Your task to perform on an android device: open the mobile data screen to see how much data has been used Image 0: 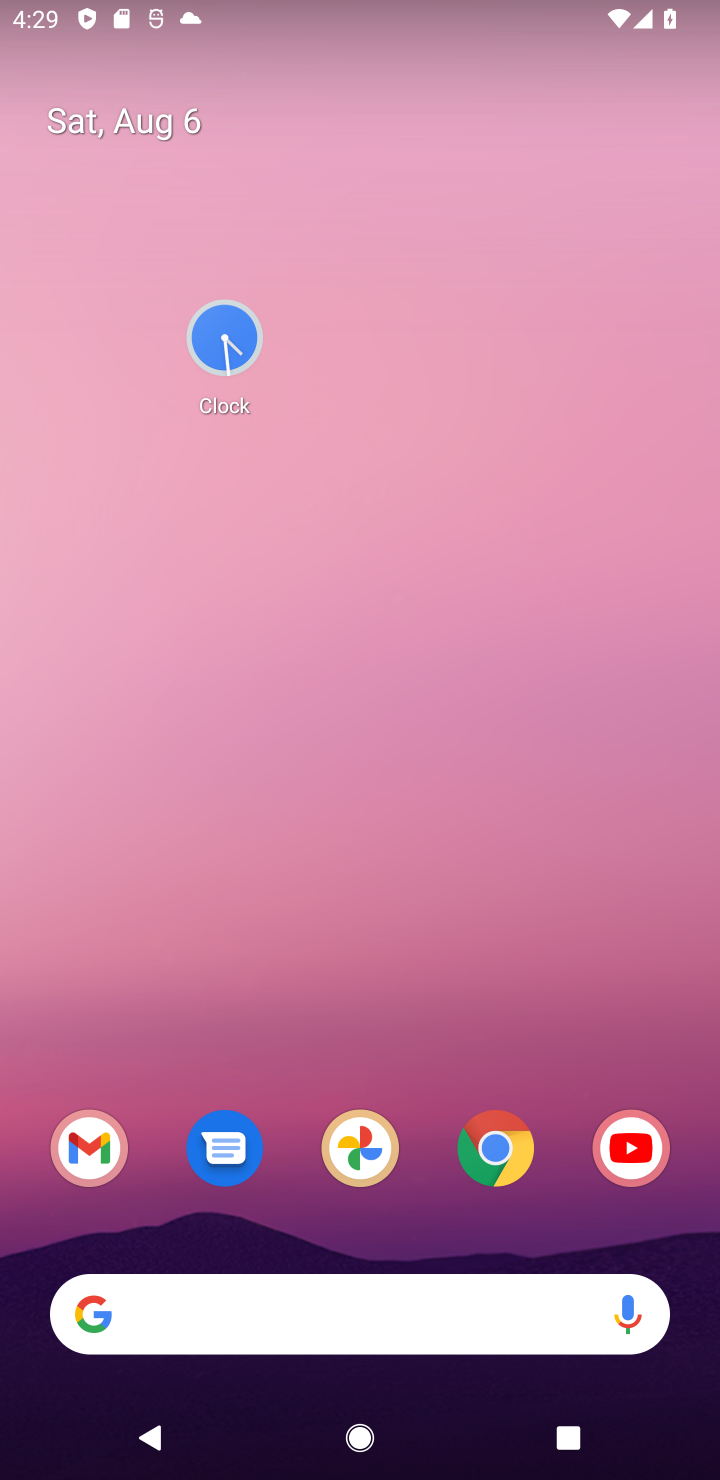
Step 0: drag from (331, 1166) to (380, 408)
Your task to perform on an android device: open the mobile data screen to see how much data has been used Image 1: 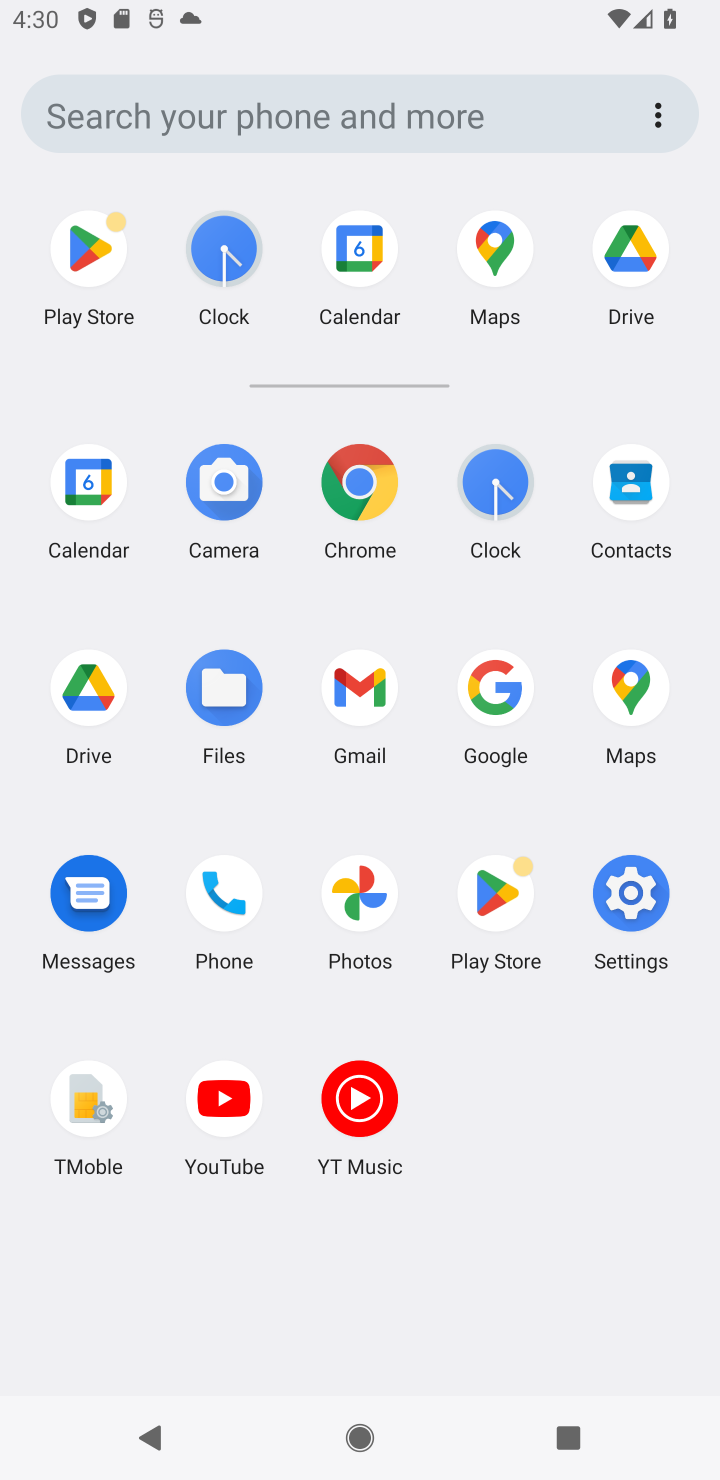
Step 1: click (646, 885)
Your task to perform on an android device: open the mobile data screen to see how much data has been used Image 2: 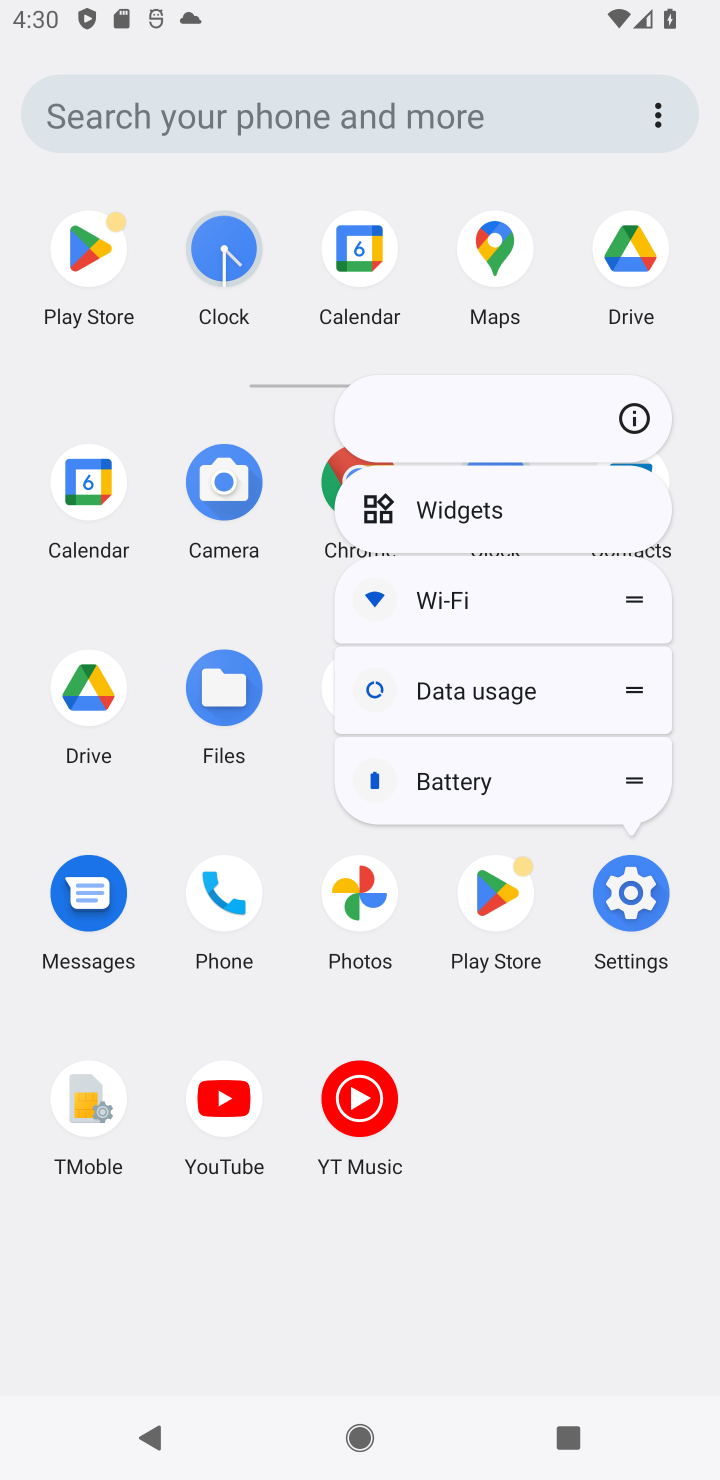
Step 2: click (620, 425)
Your task to perform on an android device: open the mobile data screen to see how much data has been used Image 3: 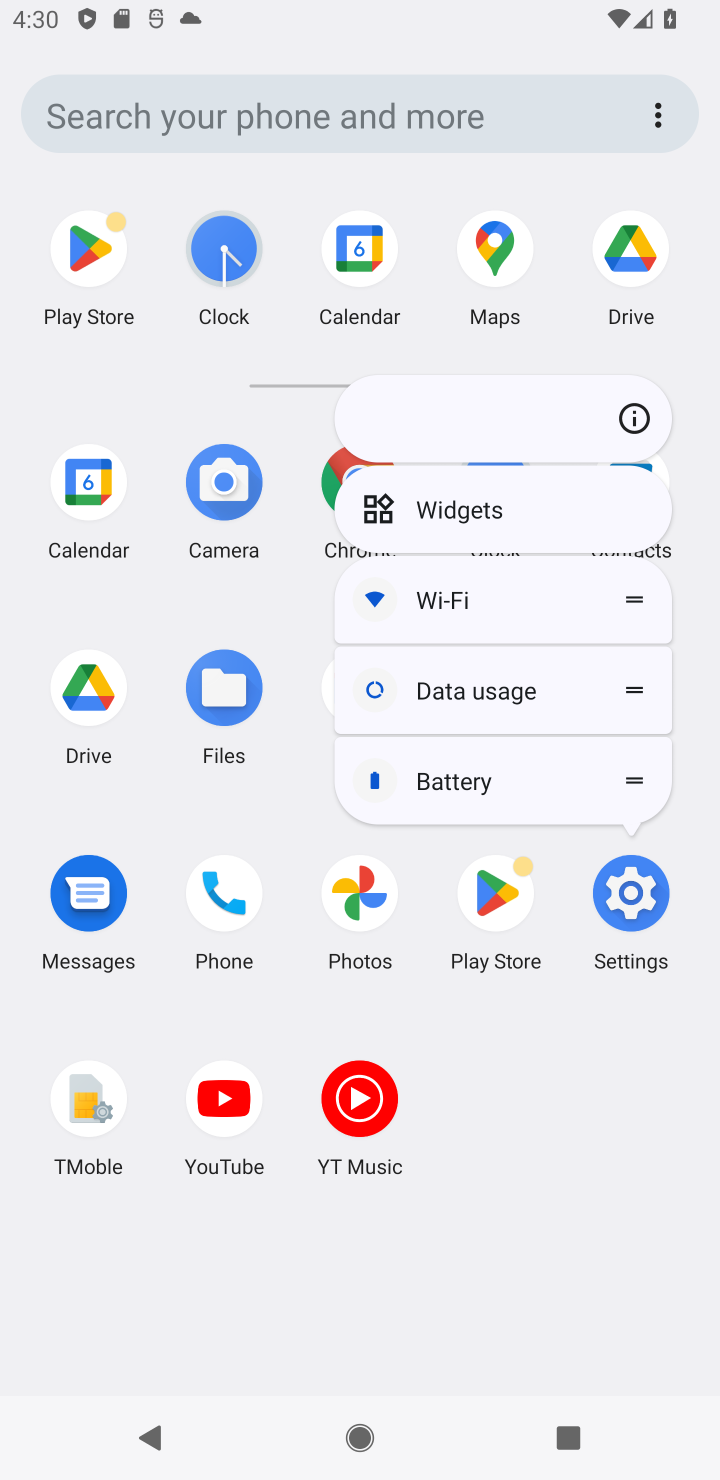
Step 3: click (646, 407)
Your task to perform on an android device: open the mobile data screen to see how much data has been used Image 4: 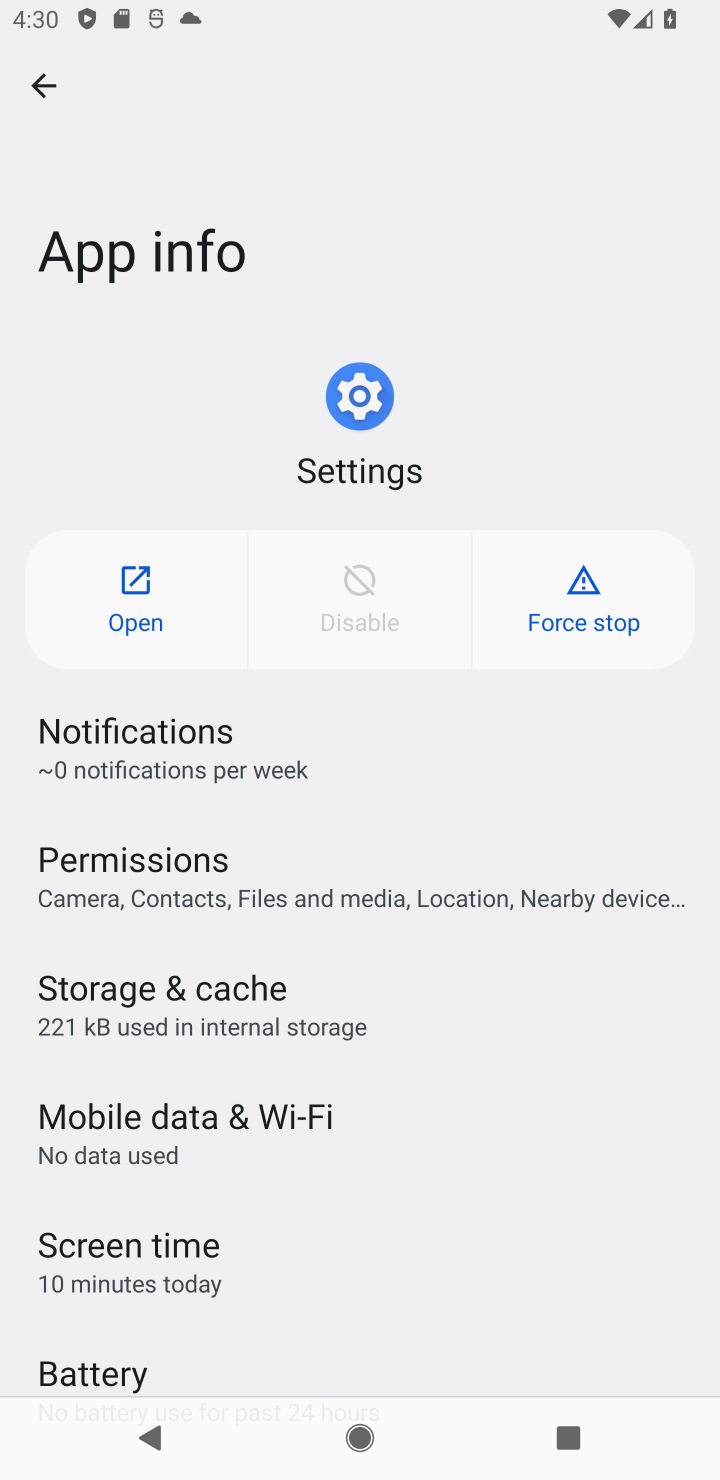
Step 4: click (104, 619)
Your task to perform on an android device: open the mobile data screen to see how much data has been used Image 5: 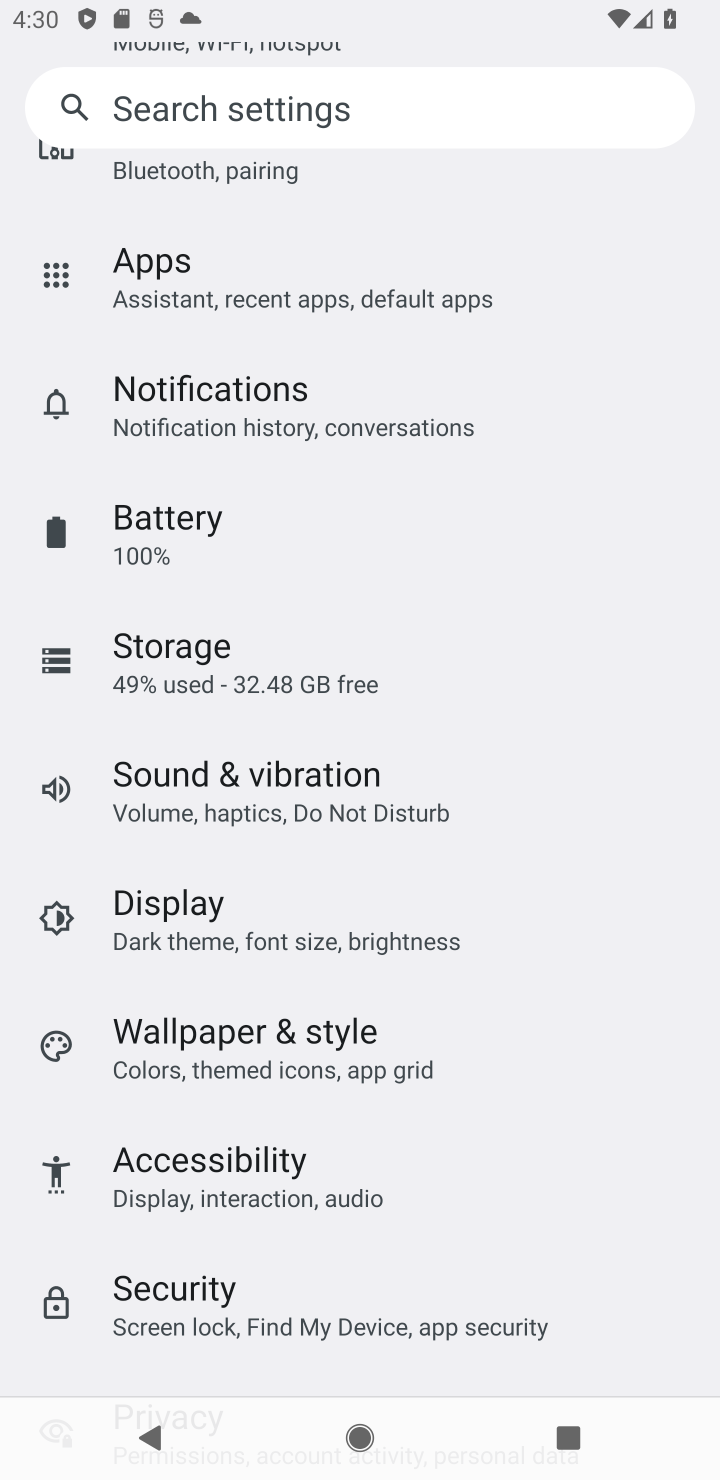
Step 5: drag from (257, 341) to (308, 1357)
Your task to perform on an android device: open the mobile data screen to see how much data has been used Image 6: 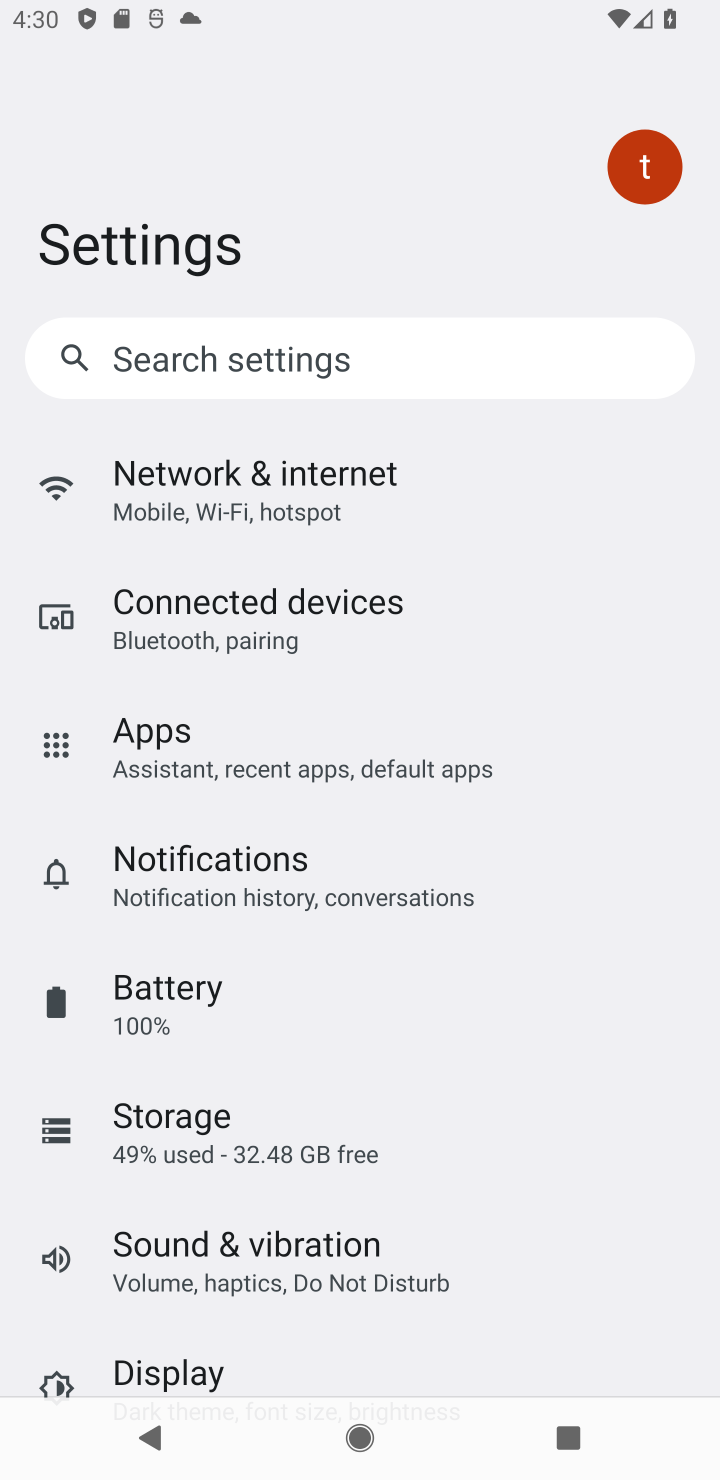
Step 6: click (258, 519)
Your task to perform on an android device: open the mobile data screen to see how much data has been used Image 7: 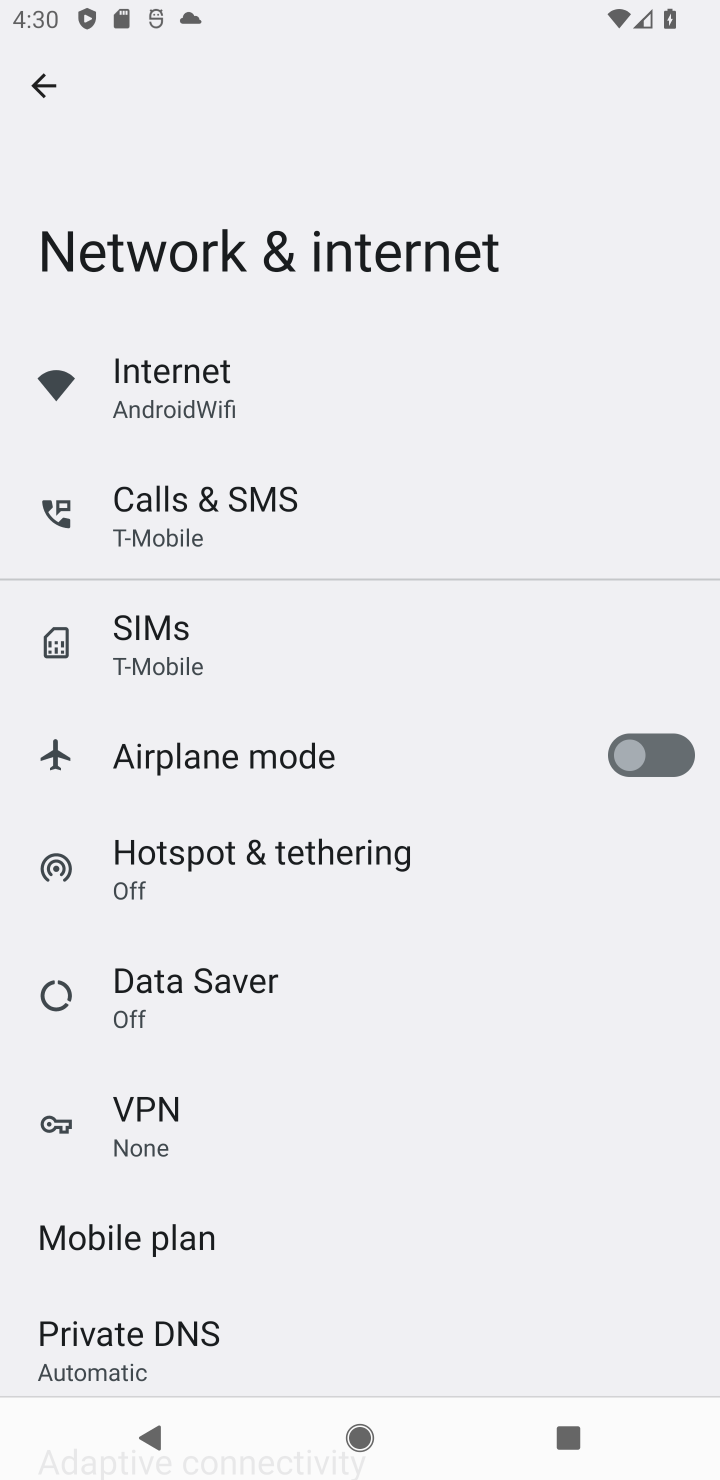
Step 7: click (216, 379)
Your task to perform on an android device: open the mobile data screen to see how much data has been used Image 8: 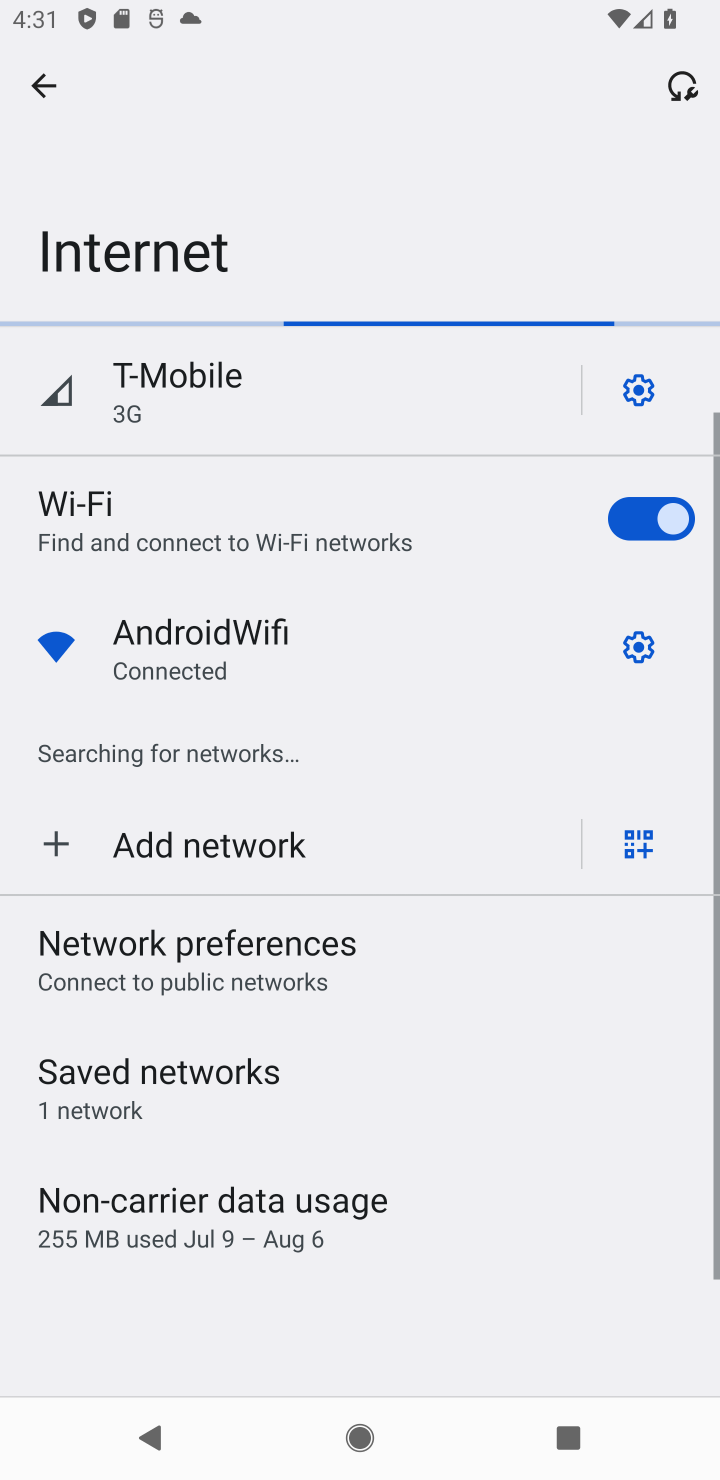
Step 8: press back button
Your task to perform on an android device: open the mobile data screen to see how much data has been used Image 9: 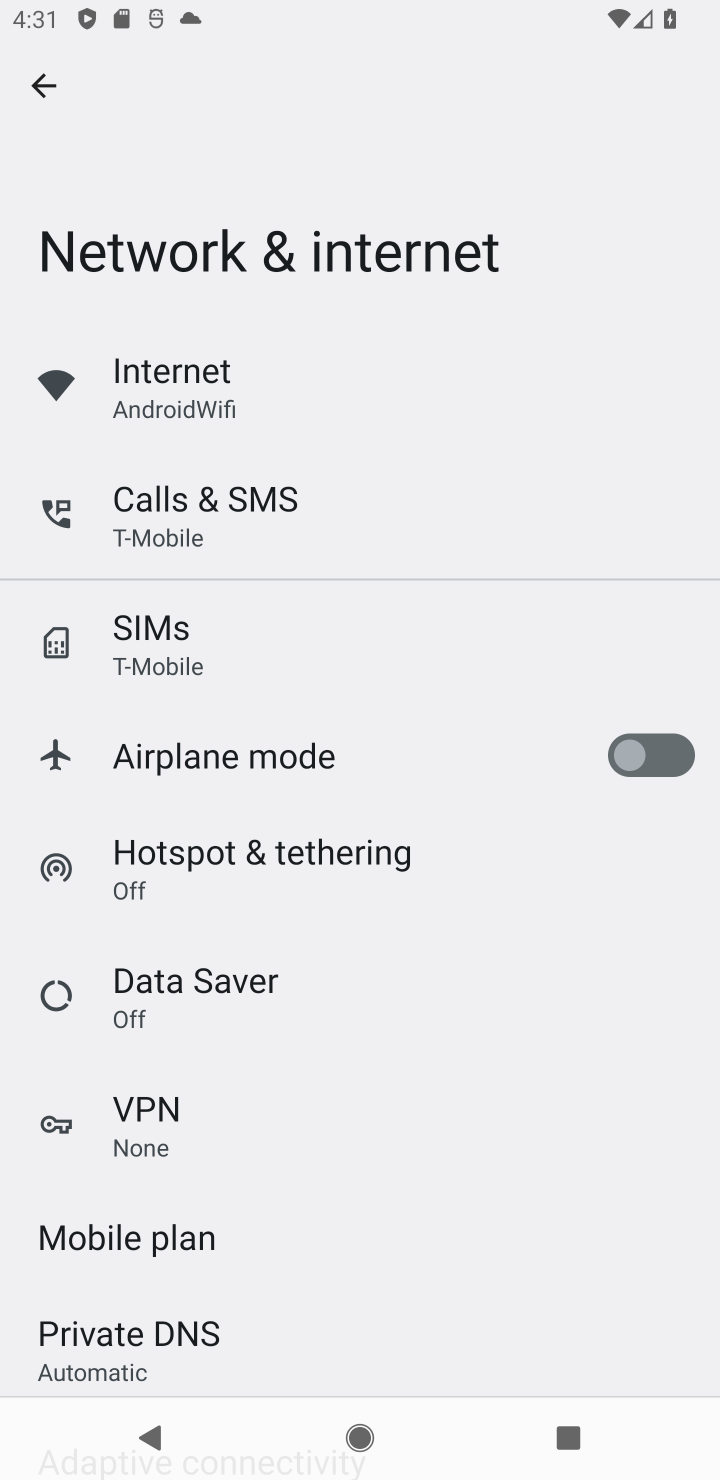
Step 9: drag from (334, 1027) to (437, 559)
Your task to perform on an android device: open the mobile data screen to see how much data has been used Image 10: 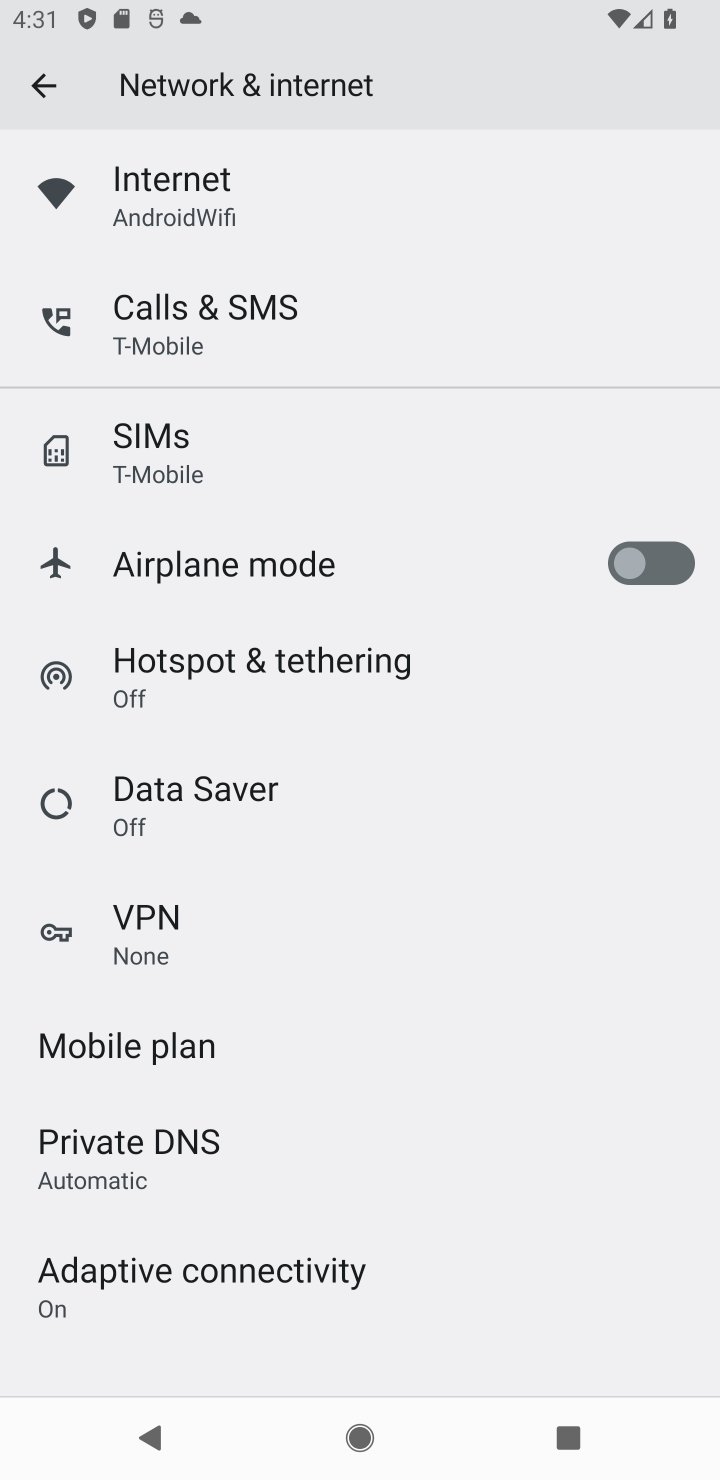
Step 10: click (151, 463)
Your task to perform on an android device: open the mobile data screen to see how much data has been used Image 11: 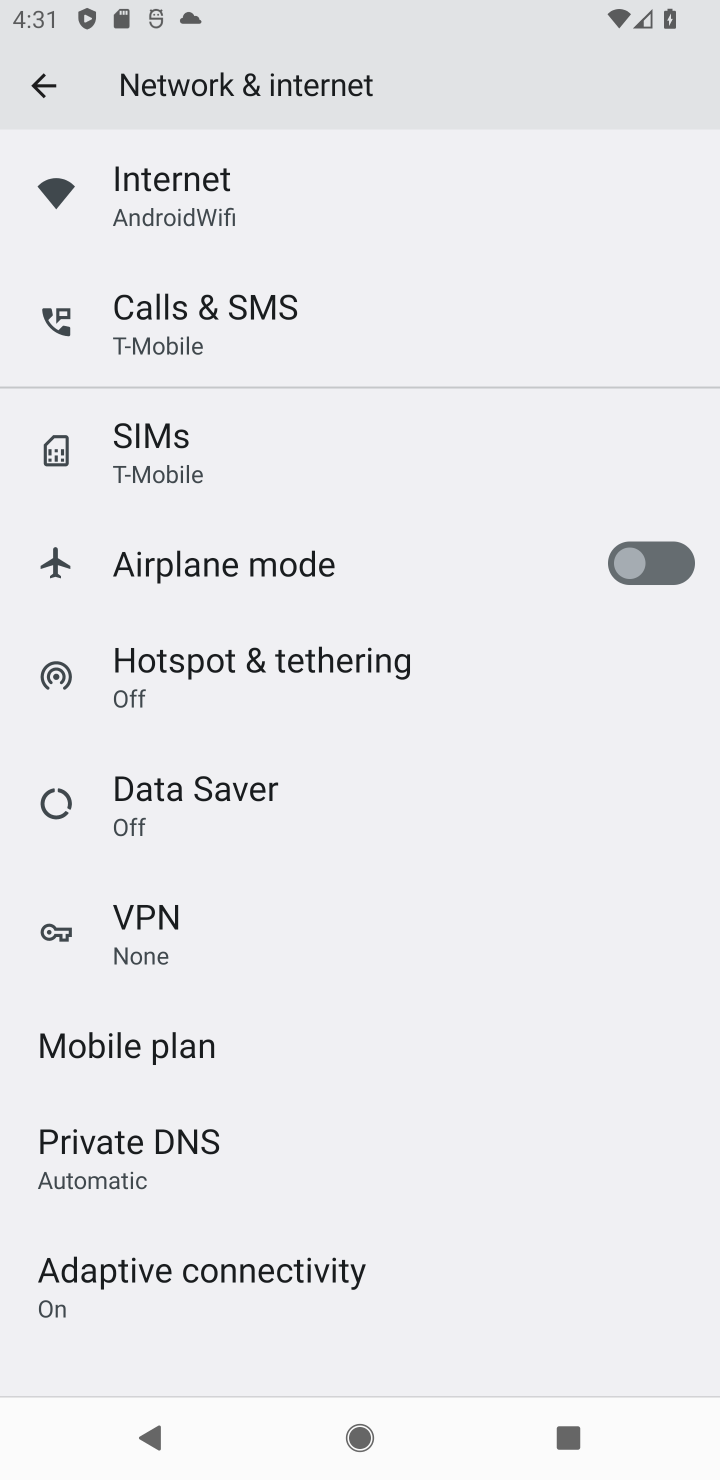
Step 11: task complete